Your task to perform on an android device: Search for Italian restaurants on Maps Image 0: 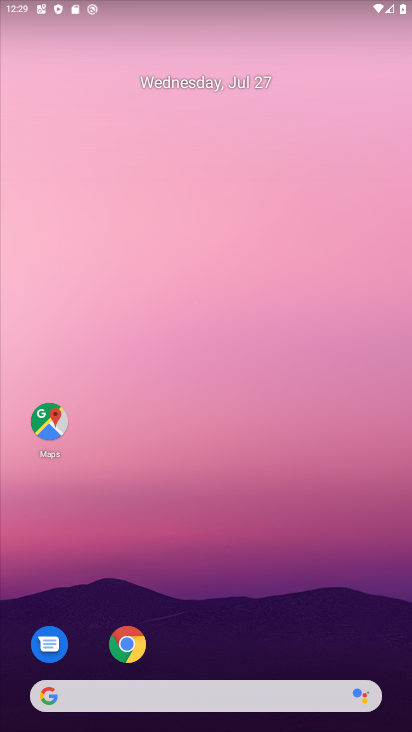
Step 0: drag from (307, 652) to (308, 333)
Your task to perform on an android device: Search for Italian restaurants on Maps Image 1: 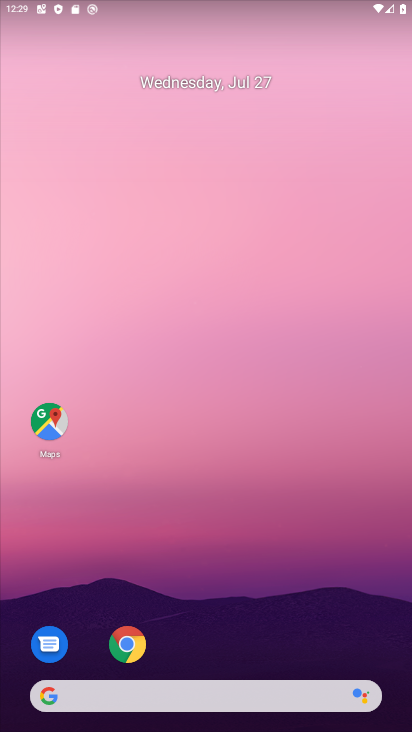
Step 1: drag from (250, 665) to (229, 0)
Your task to perform on an android device: Search for Italian restaurants on Maps Image 2: 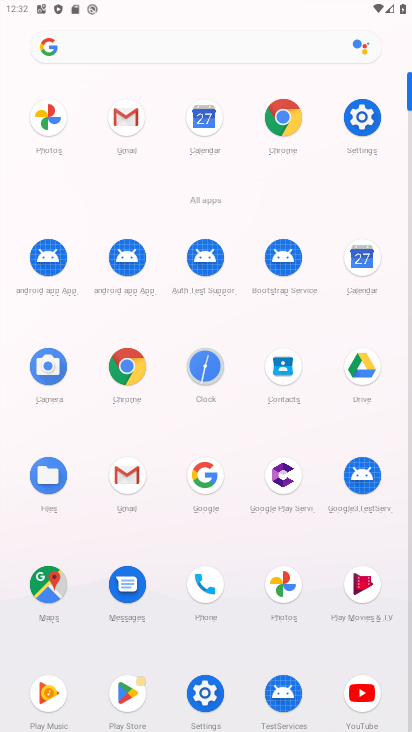
Step 2: click (18, 600)
Your task to perform on an android device: Search for Italian restaurants on Maps Image 3: 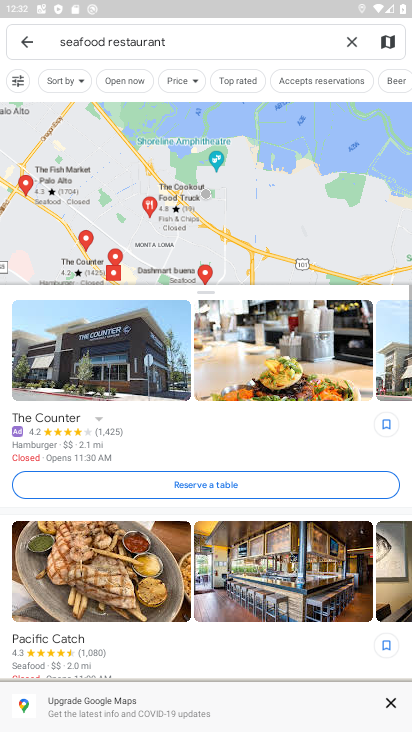
Step 3: click (350, 45)
Your task to perform on an android device: Search for Italian restaurants on Maps Image 4: 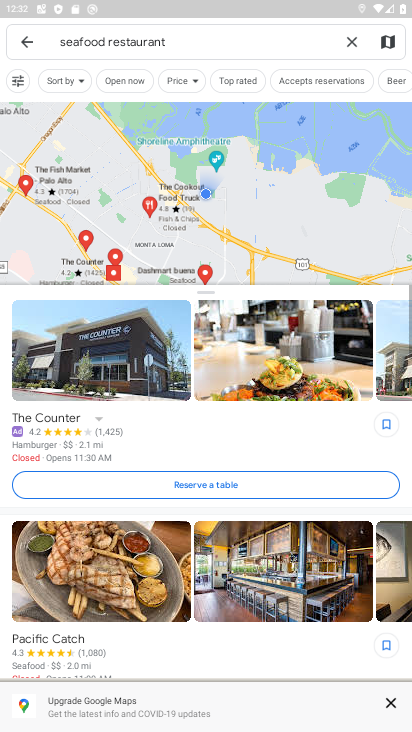
Step 4: click (266, 46)
Your task to perform on an android device: Search for Italian restaurants on Maps Image 5: 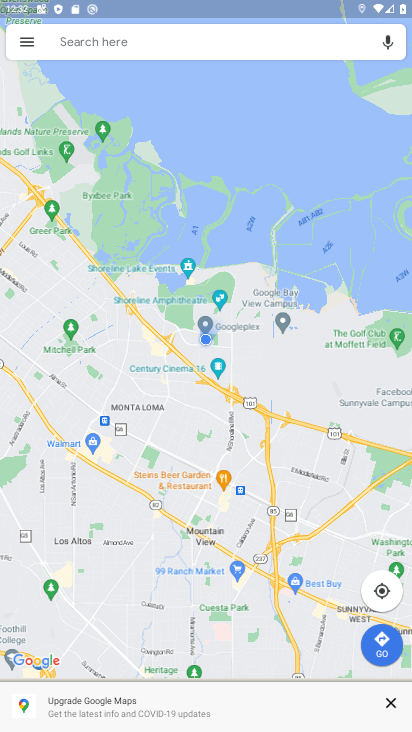
Step 5: click (264, 48)
Your task to perform on an android device: Search for Italian restaurants on Maps Image 6: 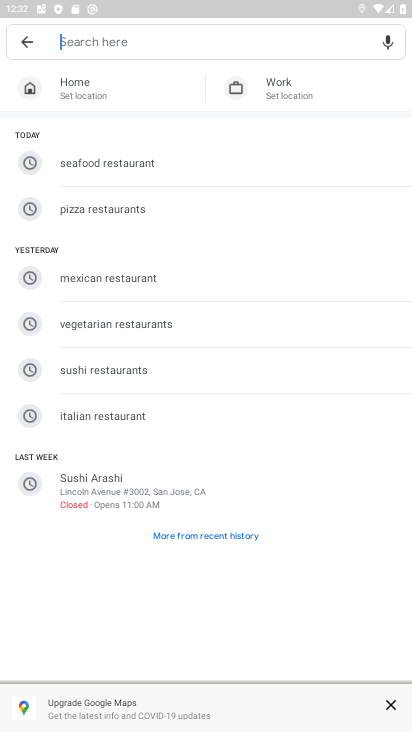
Step 6: click (255, 48)
Your task to perform on an android device: Search for Italian restaurants on Maps Image 7: 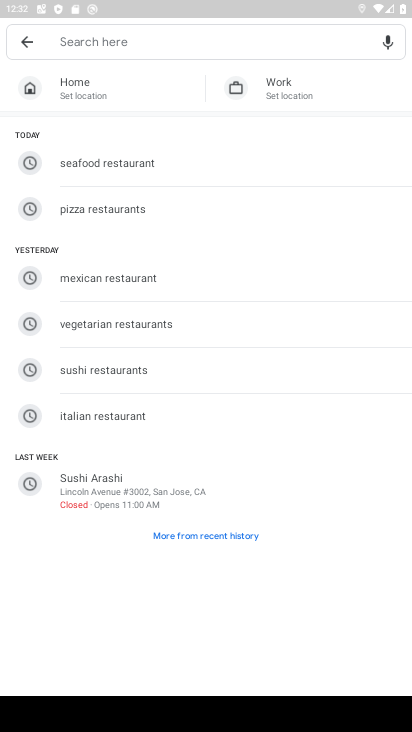
Step 7: type " Italian restaurants "
Your task to perform on an android device: Search for Italian restaurants on Maps Image 8: 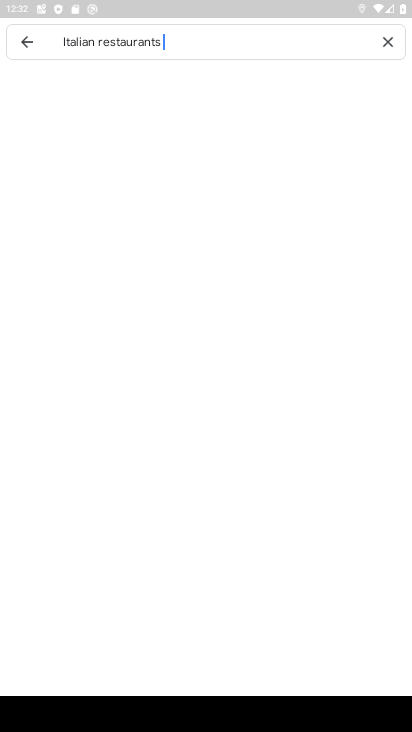
Step 8: type ""
Your task to perform on an android device: Search for Italian restaurants on Maps Image 9: 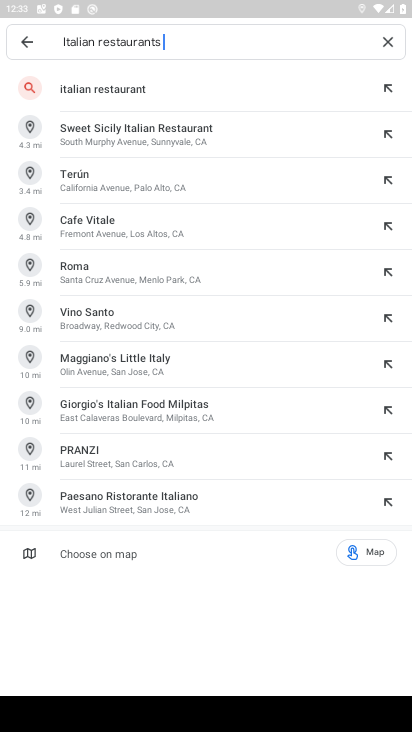
Step 9: click (181, 91)
Your task to perform on an android device: Search for Italian restaurants on Maps Image 10: 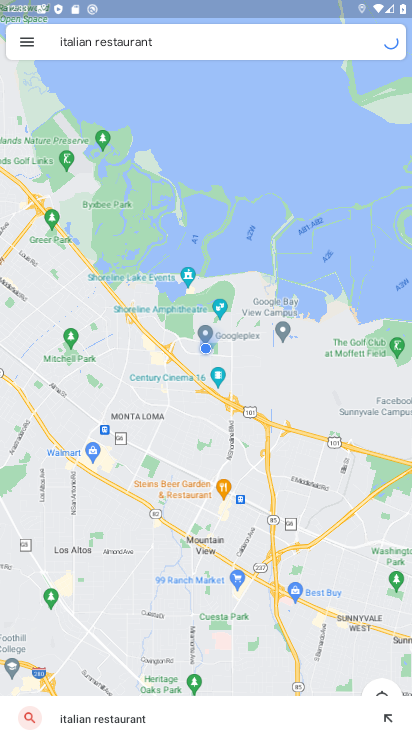
Step 10: task complete